Your task to perform on an android device: When is my next meeting? Image 0: 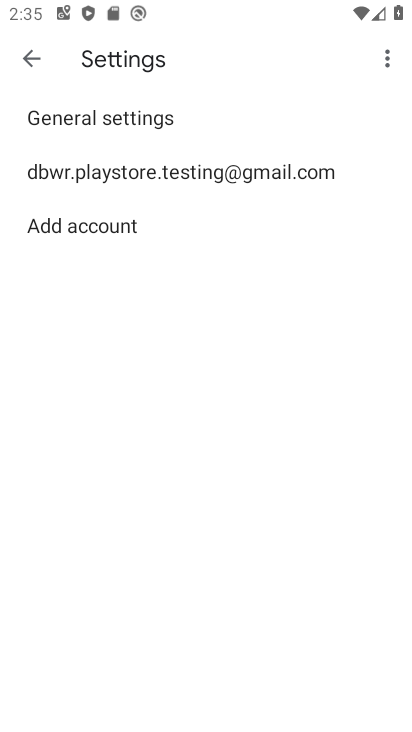
Step 0: press home button
Your task to perform on an android device: When is my next meeting? Image 1: 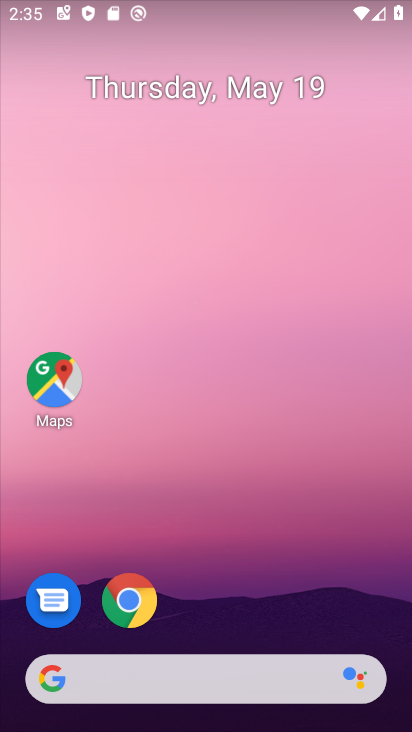
Step 1: drag from (393, 562) to (385, 345)
Your task to perform on an android device: When is my next meeting? Image 2: 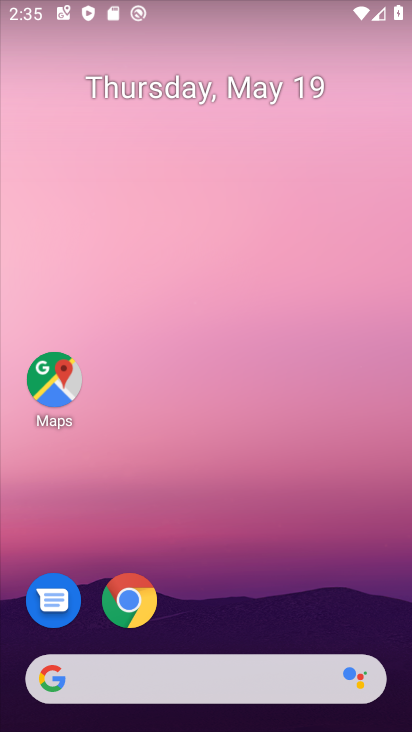
Step 2: drag from (403, 667) to (375, 303)
Your task to perform on an android device: When is my next meeting? Image 3: 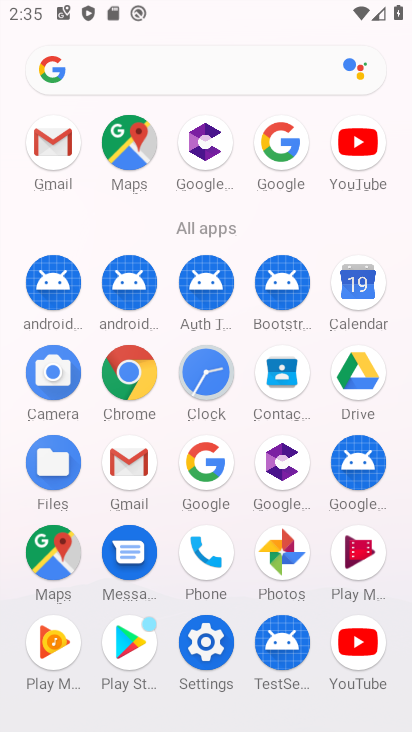
Step 3: click (359, 284)
Your task to perform on an android device: When is my next meeting? Image 4: 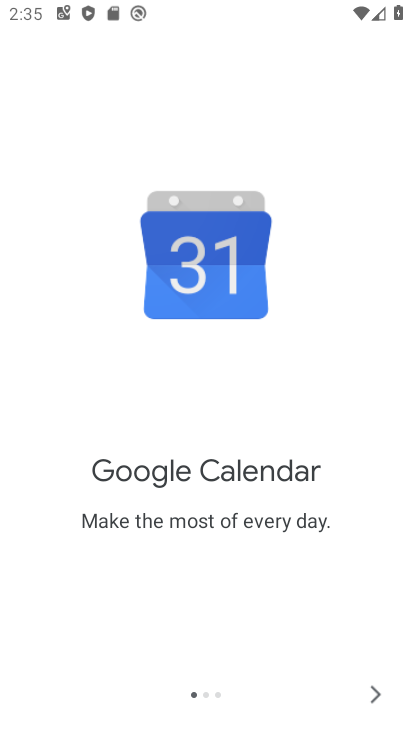
Step 4: click (377, 689)
Your task to perform on an android device: When is my next meeting? Image 5: 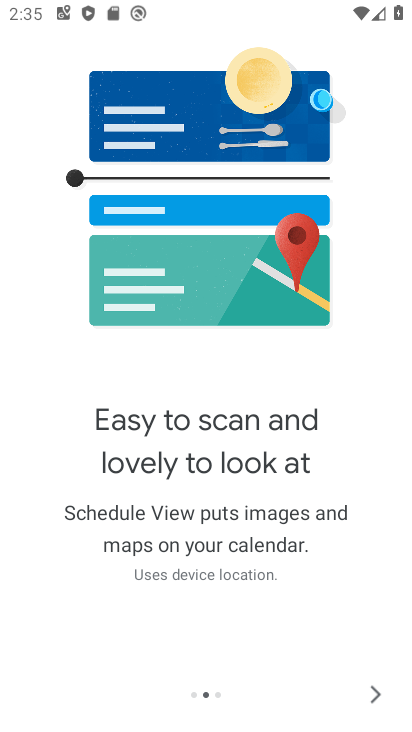
Step 5: click (377, 689)
Your task to perform on an android device: When is my next meeting? Image 6: 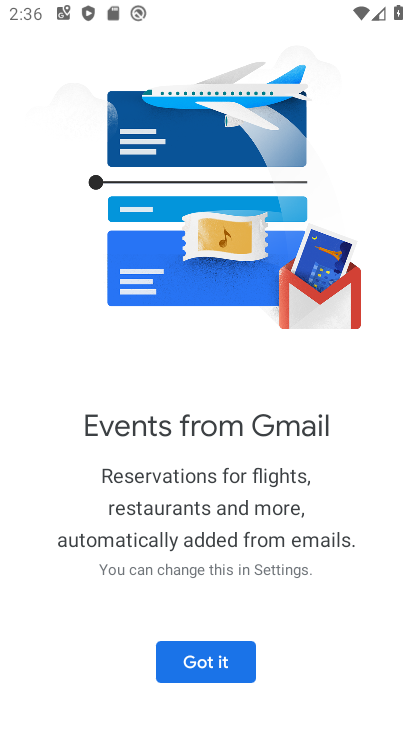
Step 6: click (235, 649)
Your task to perform on an android device: When is my next meeting? Image 7: 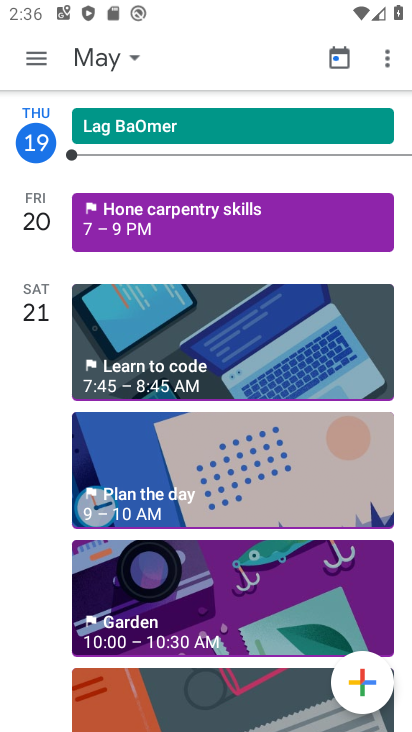
Step 7: click (44, 54)
Your task to perform on an android device: When is my next meeting? Image 8: 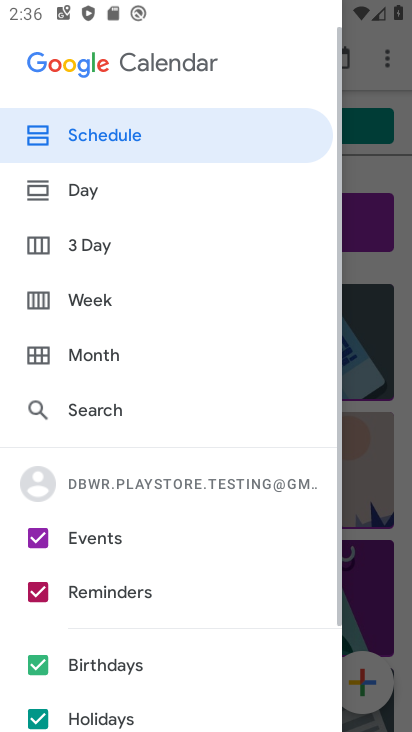
Step 8: click (82, 131)
Your task to perform on an android device: When is my next meeting? Image 9: 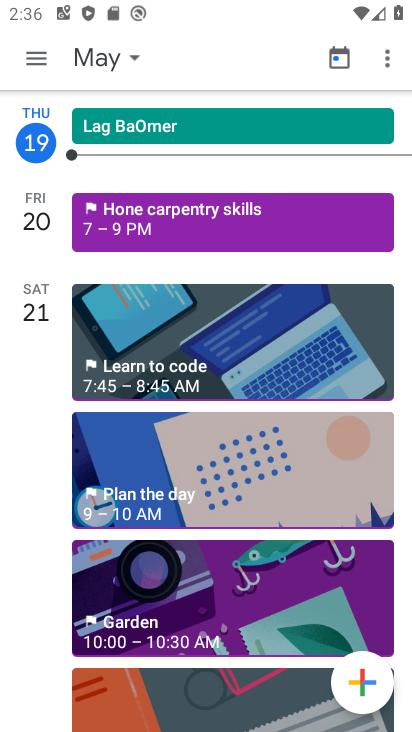
Step 9: click (24, 60)
Your task to perform on an android device: When is my next meeting? Image 10: 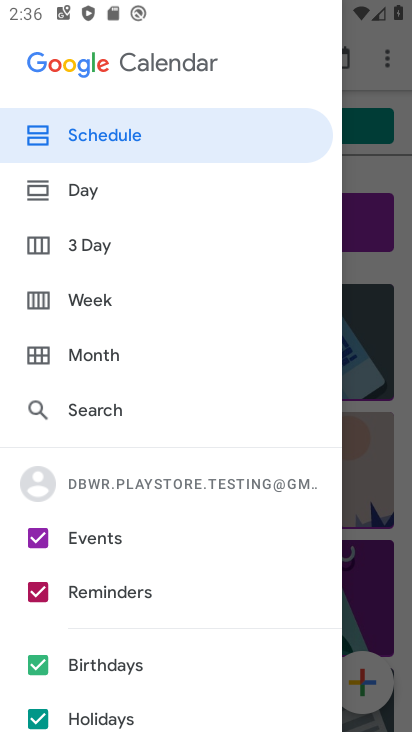
Step 10: drag from (223, 713) to (216, 383)
Your task to perform on an android device: When is my next meeting? Image 11: 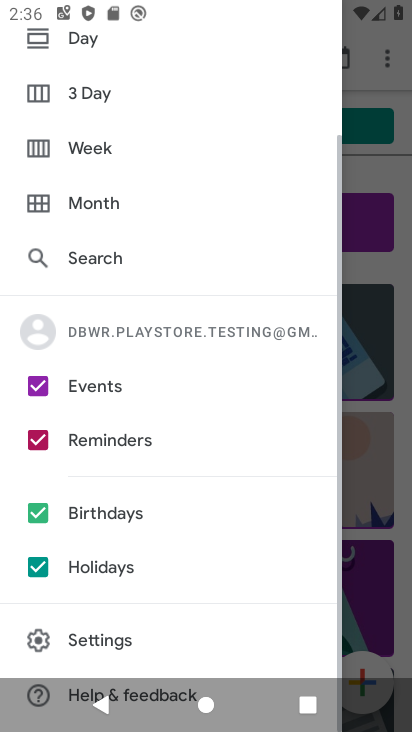
Step 11: click (31, 559)
Your task to perform on an android device: When is my next meeting? Image 12: 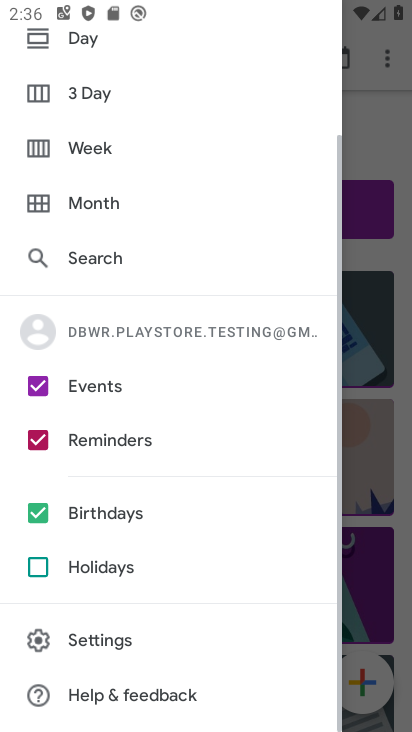
Step 12: click (40, 513)
Your task to perform on an android device: When is my next meeting? Image 13: 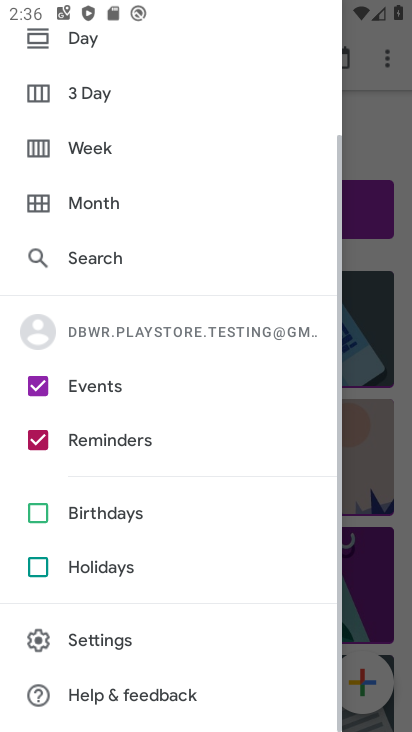
Step 13: click (37, 428)
Your task to perform on an android device: When is my next meeting? Image 14: 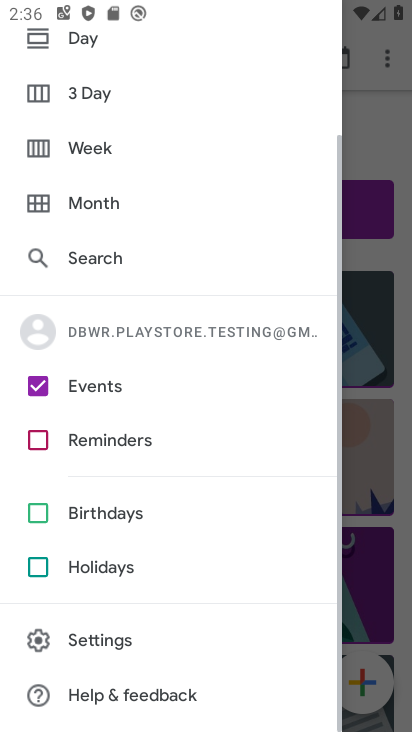
Step 14: drag from (237, 152) to (273, 415)
Your task to perform on an android device: When is my next meeting? Image 15: 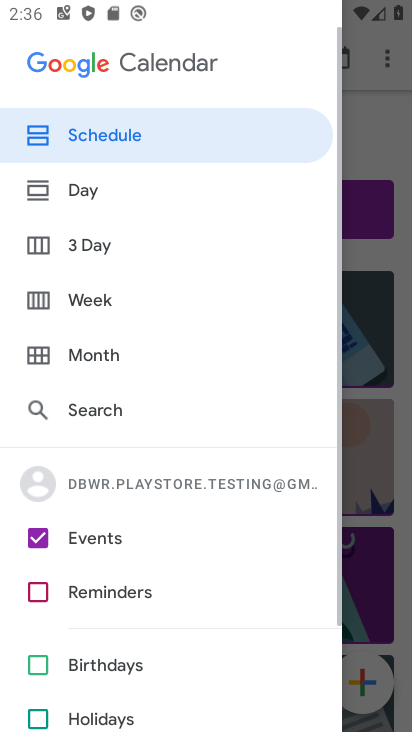
Step 15: click (98, 126)
Your task to perform on an android device: When is my next meeting? Image 16: 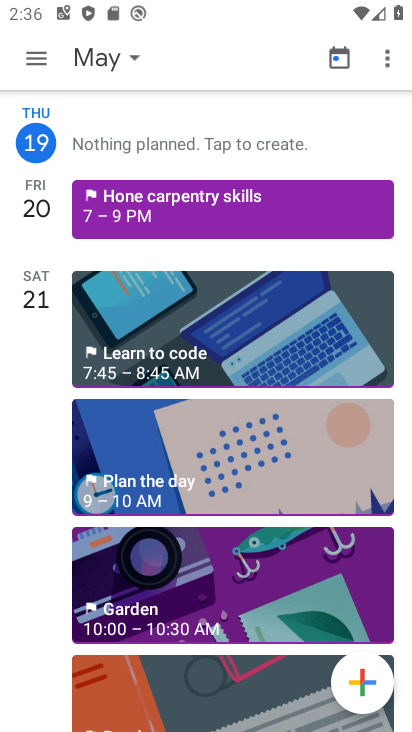
Step 16: task complete